Your task to perform on an android device: Is it going to rain today? Image 0: 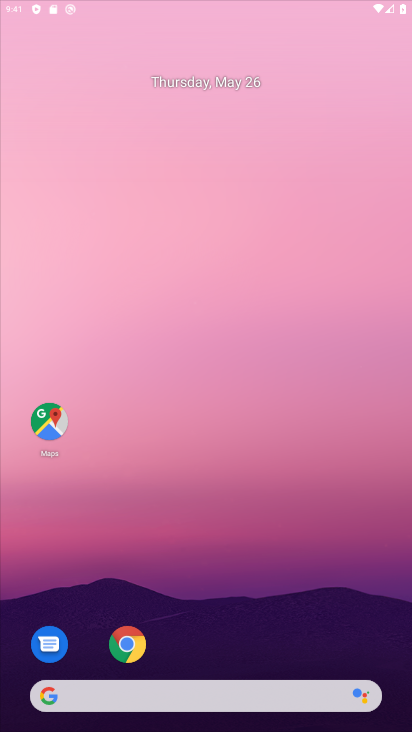
Step 0: press back button
Your task to perform on an android device: Is it going to rain today? Image 1: 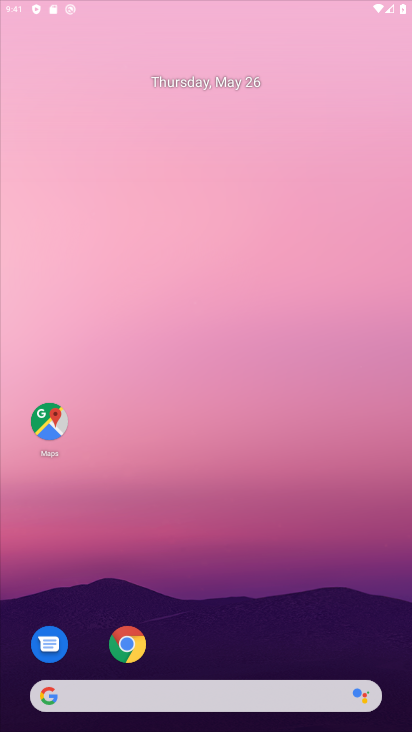
Step 1: click (114, 160)
Your task to perform on an android device: Is it going to rain today? Image 2: 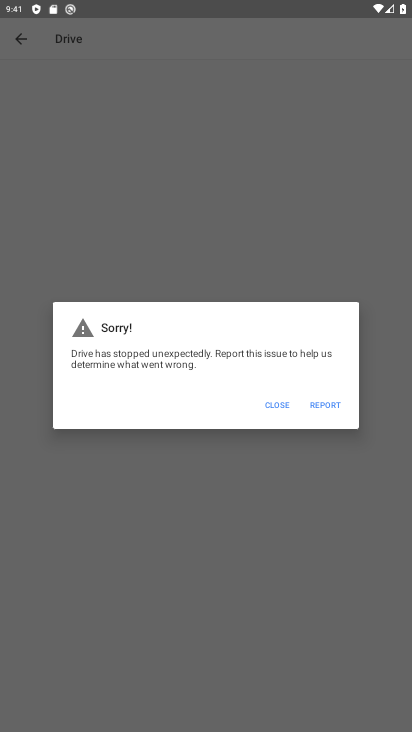
Step 2: click (272, 400)
Your task to perform on an android device: Is it going to rain today? Image 3: 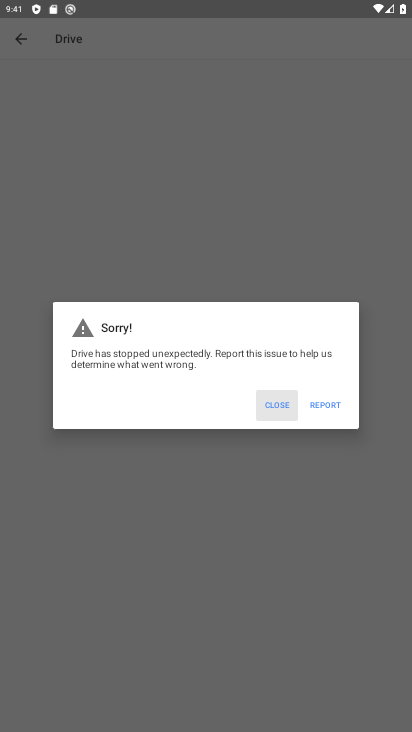
Step 3: click (274, 399)
Your task to perform on an android device: Is it going to rain today? Image 4: 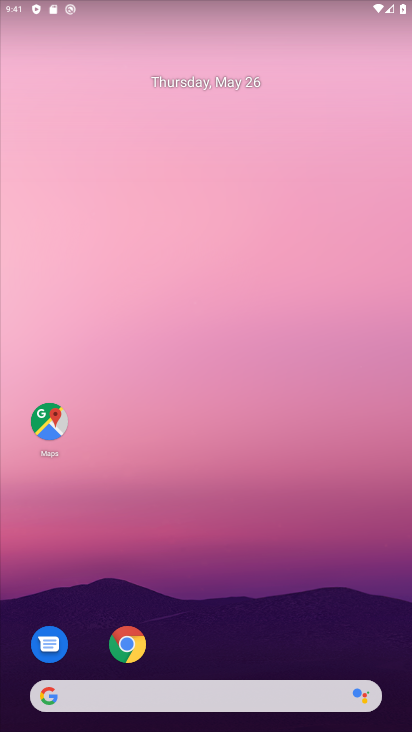
Step 4: drag from (190, 269) to (350, 550)
Your task to perform on an android device: Is it going to rain today? Image 5: 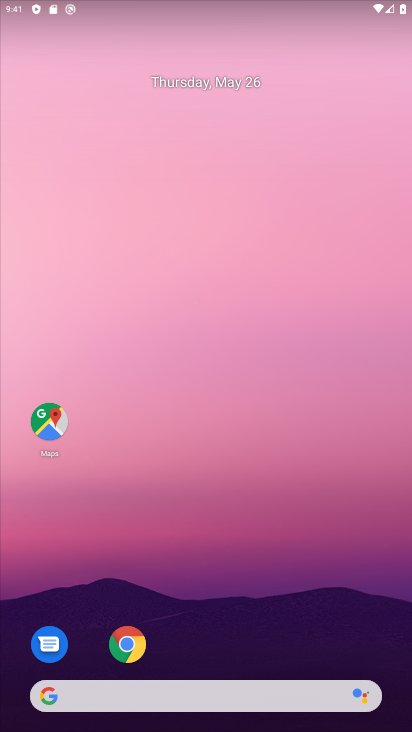
Step 5: drag from (30, 245) to (367, 430)
Your task to perform on an android device: Is it going to rain today? Image 6: 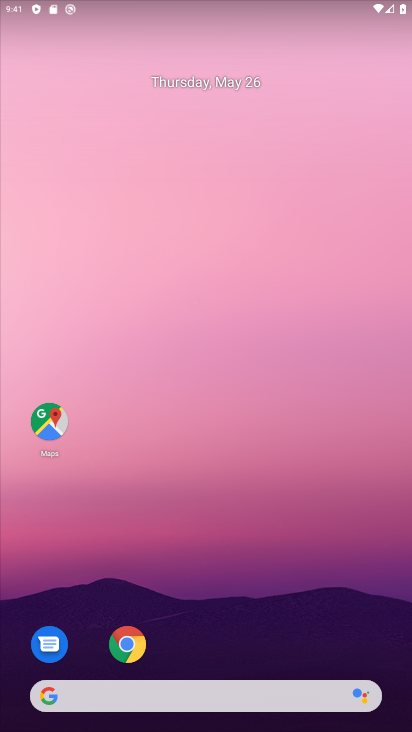
Step 6: drag from (50, 207) to (362, 402)
Your task to perform on an android device: Is it going to rain today? Image 7: 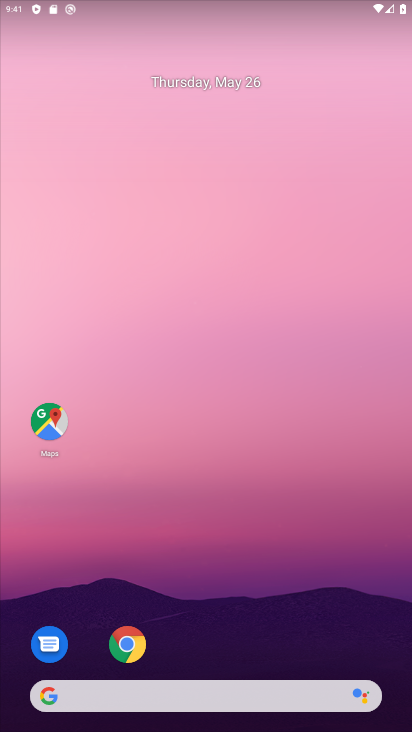
Step 7: drag from (25, 191) to (394, 412)
Your task to perform on an android device: Is it going to rain today? Image 8: 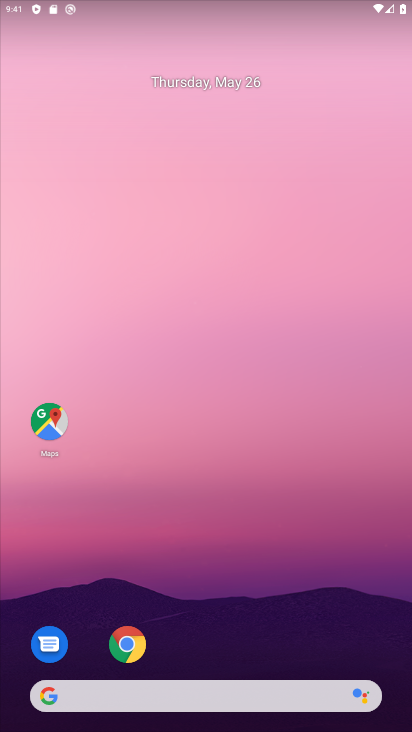
Step 8: click (398, 430)
Your task to perform on an android device: Is it going to rain today? Image 9: 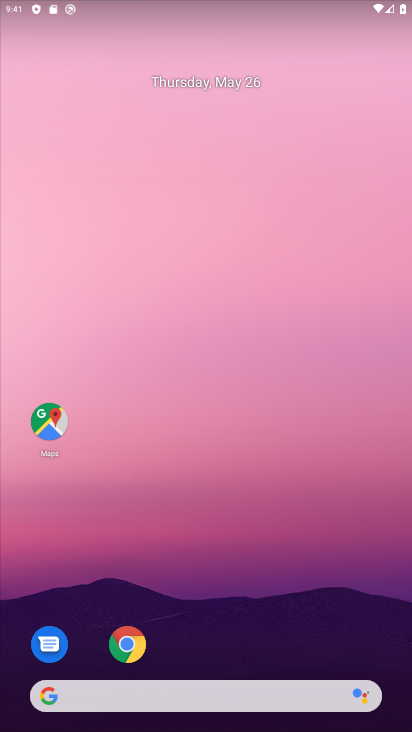
Step 9: drag from (10, 257) to (360, 383)
Your task to perform on an android device: Is it going to rain today? Image 10: 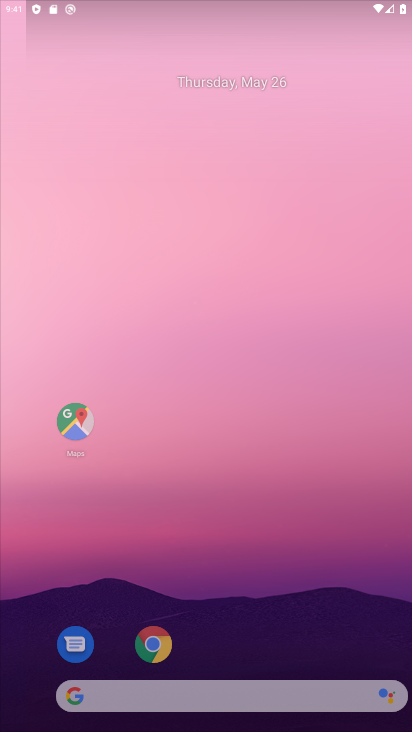
Step 10: drag from (2, 261) to (311, 452)
Your task to perform on an android device: Is it going to rain today? Image 11: 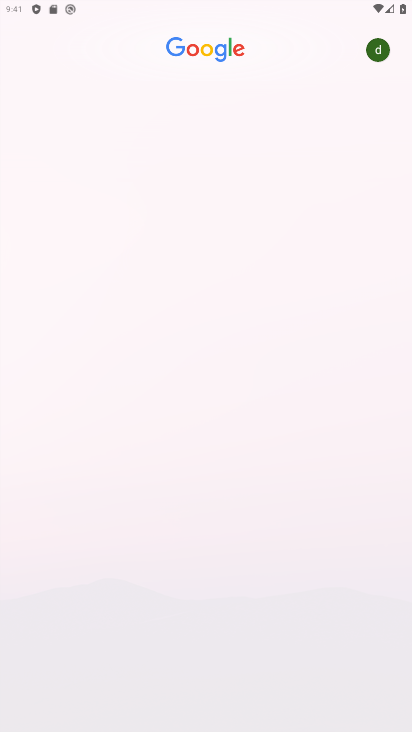
Step 11: drag from (135, 333) to (409, 475)
Your task to perform on an android device: Is it going to rain today? Image 12: 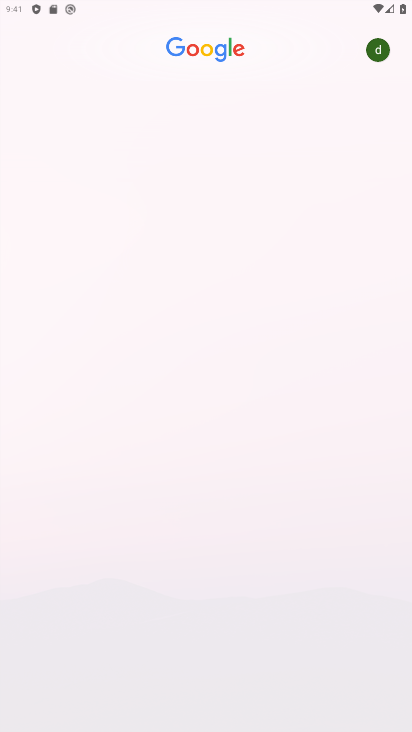
Step 12: drag from (99, 226) to (330, 340)
Your task to perform on an android device: Is it going to rain today? Image 13: 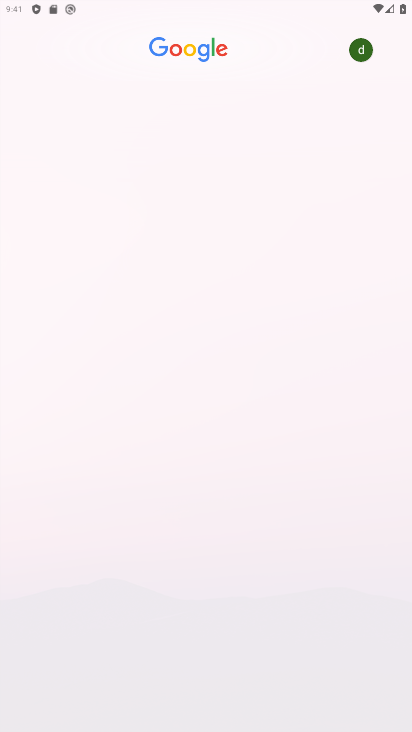
Step 13: drag from (222, 355) to (371, 358)
Your task to perform on an android device: Is it going to rain today? Image 14: 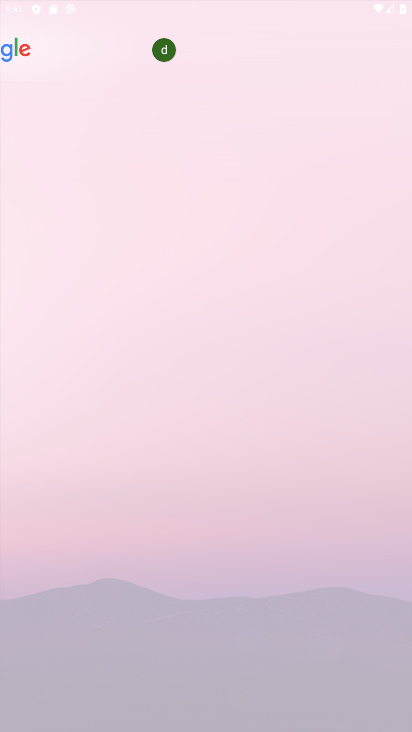
Step 14: drag from (111, 239) to (387, 366)
Your task to perform on an android device: Is it going to rain today? Image 15: 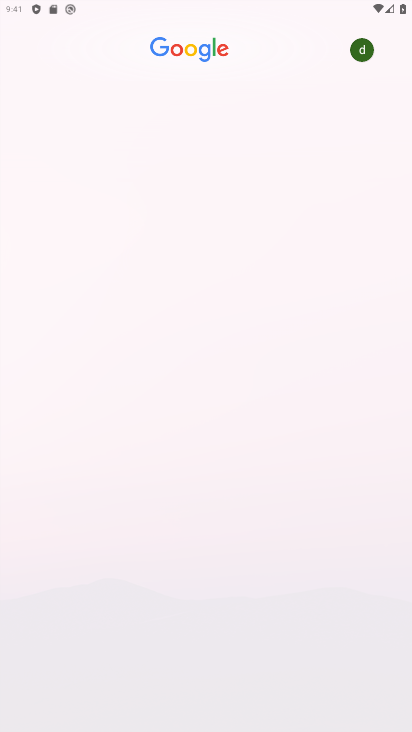
Step 15: drag from (97, 228) to (366, 536)
Your task to perform on an android device: Is it going to rain today? Image 16: 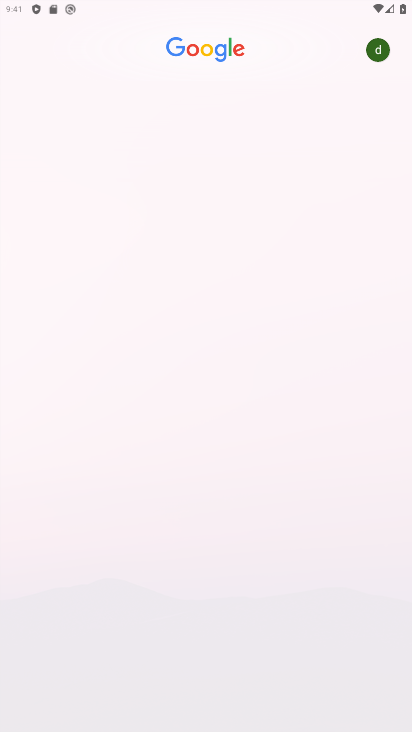
Step 16: drag from (79, 293) to (292, 477)
Your task to perform on an android device: Is it going to rain today? Image 17: 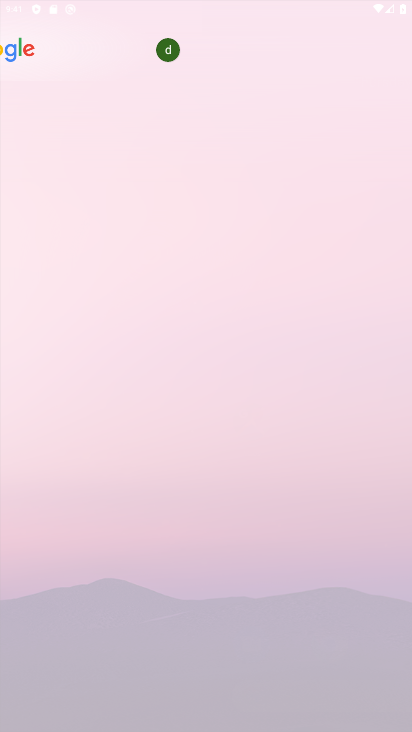
Step 17: drag from (29, 294) to (390, 573)
Your task to perform on an android device: Is it going to rain today? Image 18: 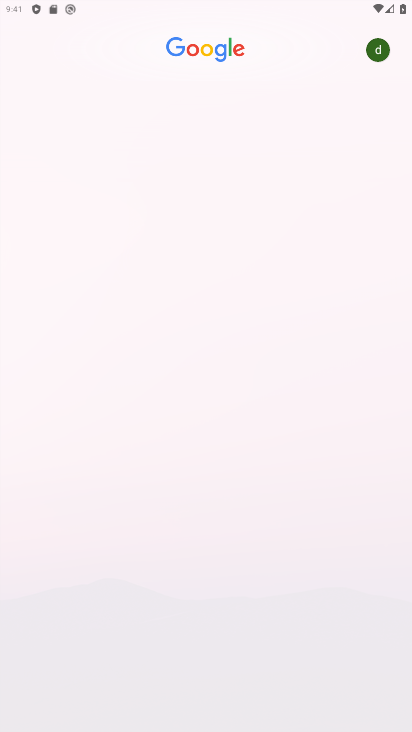
Step 18: drag from (30, 268) to (396, 439)
Your task to perform on an android device: Is it going to rain today? Image 19: 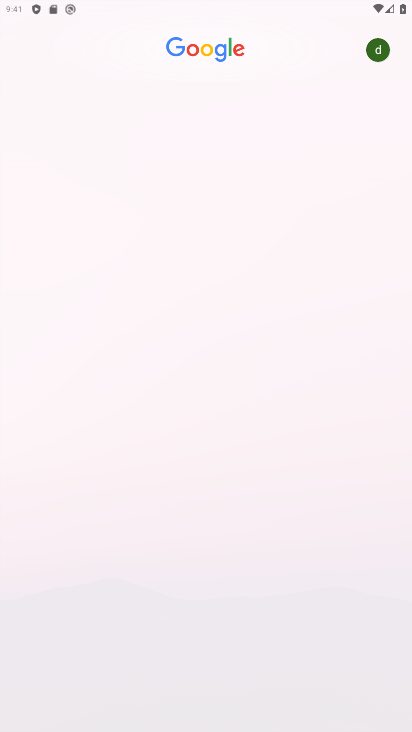
Step 19: drag from (160, 369) to (405, 407)
Your task to perform on an android device: Is it going to rain today? Image 20: 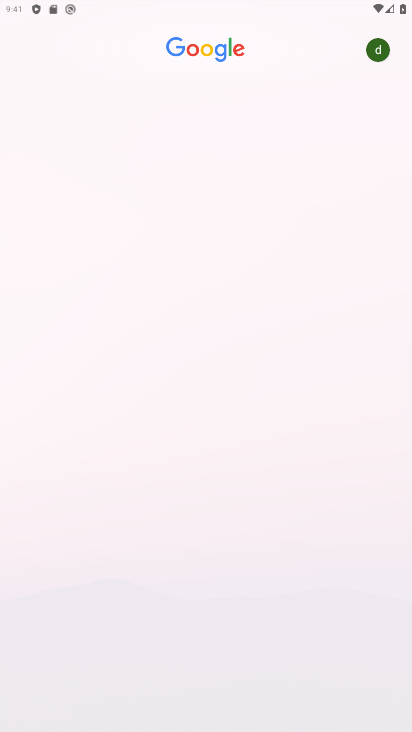
Step 20: drag from (240, 344) to (347, 529)
Your task to perform on an android device: Is it going to rain today? Image 21: 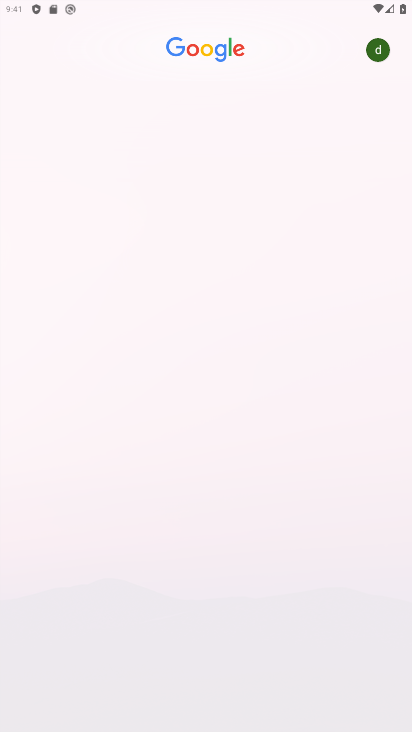
Step 21: drag from (93, 361) to (313, 468)
Your task to perform on an android device: Is it going to rain today? Image 22: 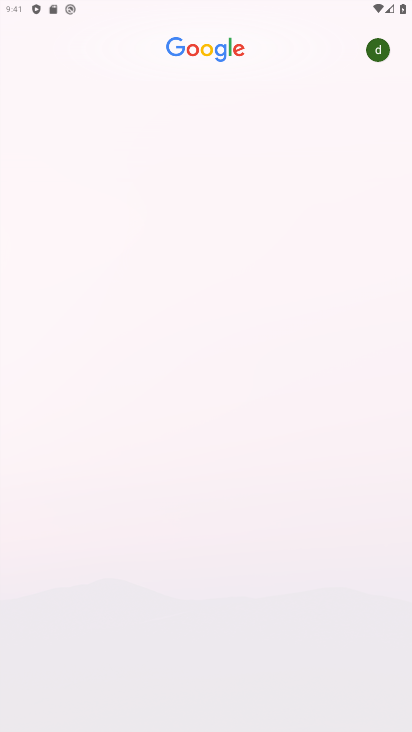
Step 22: drag from (127, 343) to (362, 731)
Your task to perform on an android device: Is it going to rain today? Image 23: 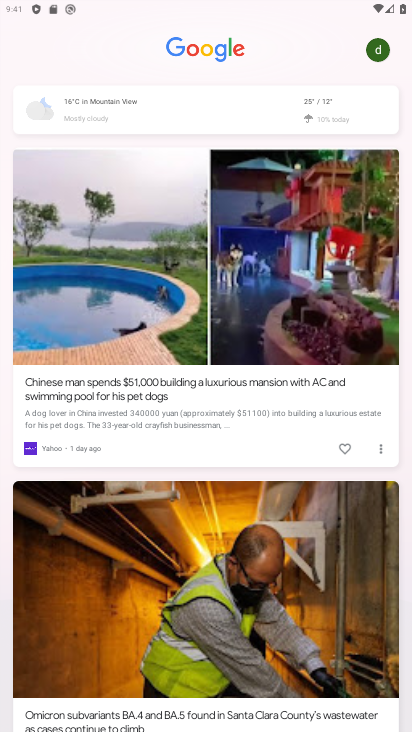
Step 23: click (199, 106)
Your task to perform on an android device: Is it going to rain today? Image 24: 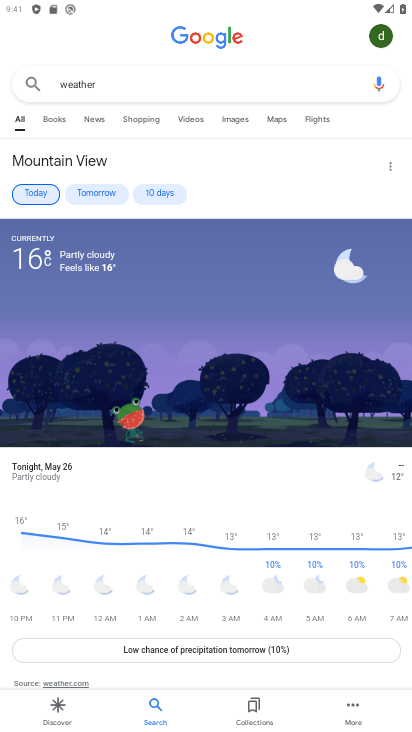
Step 24: task complete